Your task to perform on an android device: Open the Play Movies app and select the watchlist tab. Image 0: 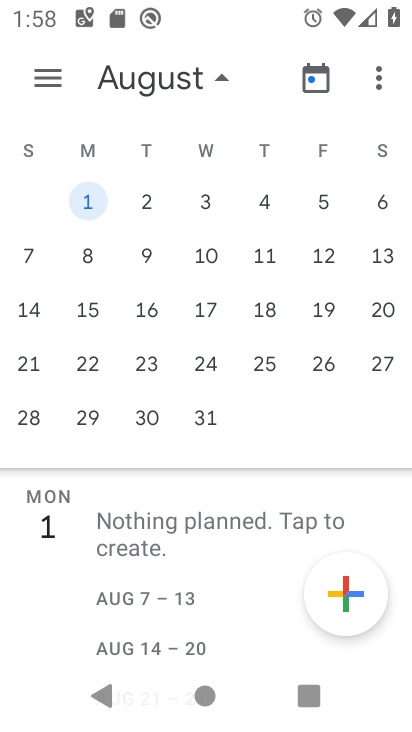
Step 0: press home button
Your task to perform on an android device: Open the Play Movies app and select the watchlist tab. Image 1: 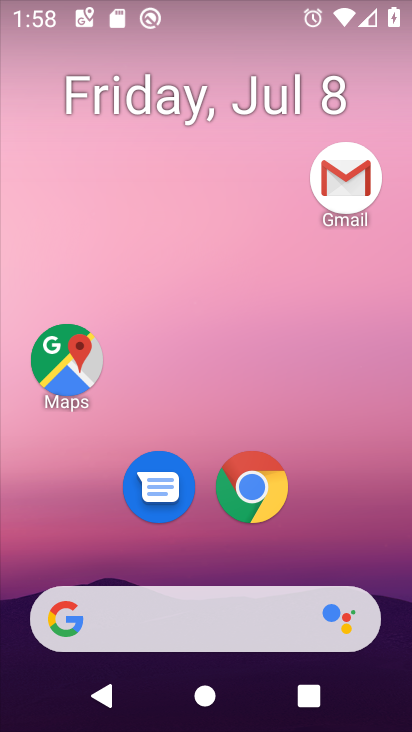
Step 1: drag from (368, 537) to (362, 235)
Your task to perform on an android device: Open the Play Movies app and select the watchlist tab. Image 2: 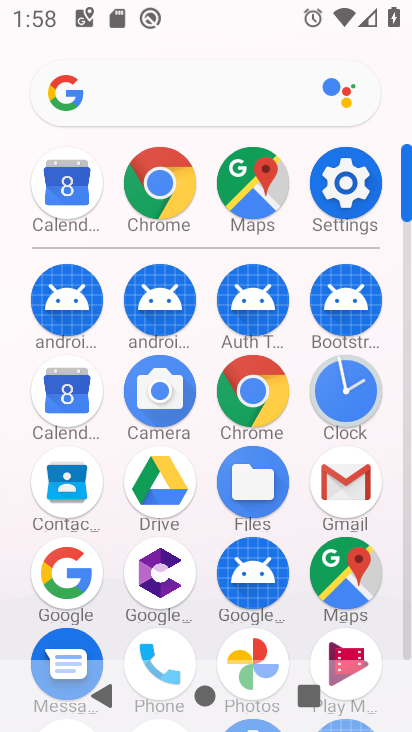
Step 2: drag from (390, 531) to (411, 387)
Your task to perform on an android device: Open the Play Movies app and select the watchlist tab. Image 3: 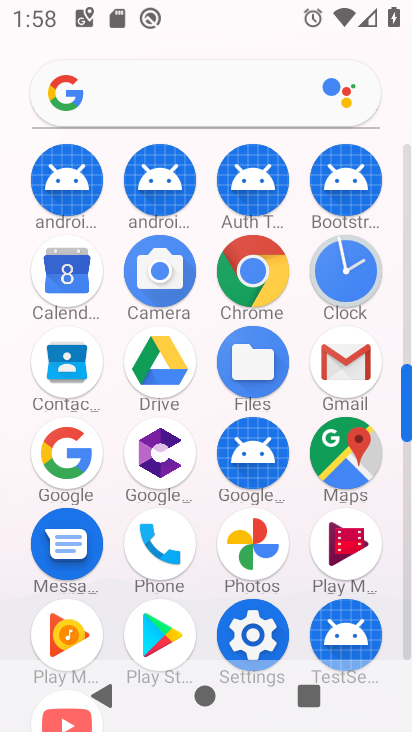
Step 3: click (344, 546)
Your task to perform on an android device: Open the Play Movies app and select the watchlist tab. Image 4: 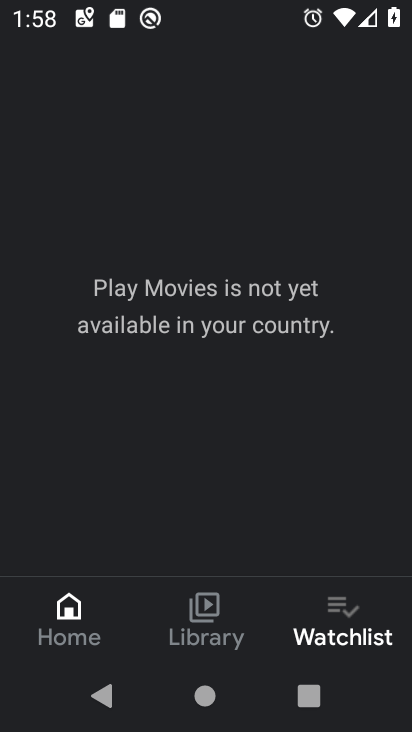
Step 4: task complete